Your task to perform on an android device: turn off priority inbox in the gmail app Image 0: 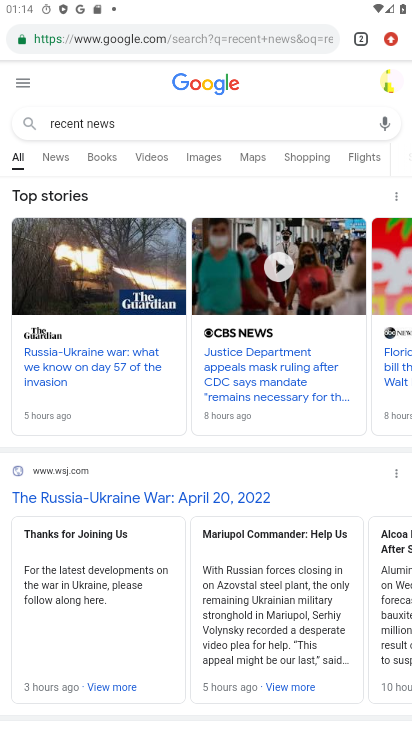
Step 0: press home button
Your task to perform on an android device: turn off priority inbox in the gmail app Image 1: 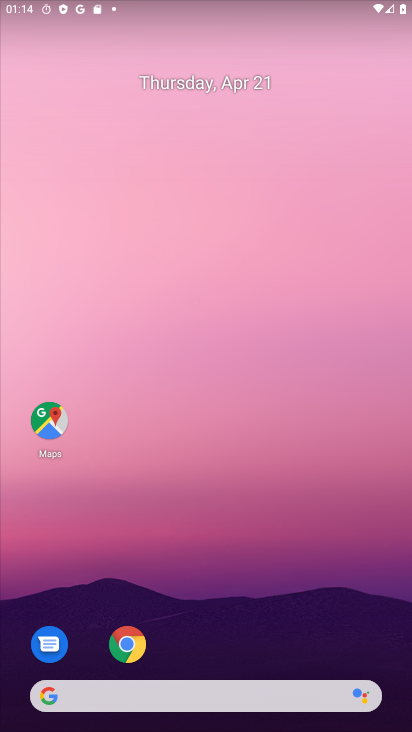
Step 1: drag from (275, 623) to (186, 66)
Your task to perform on an android device: turn off priority inbox in the gmail app Image 2: 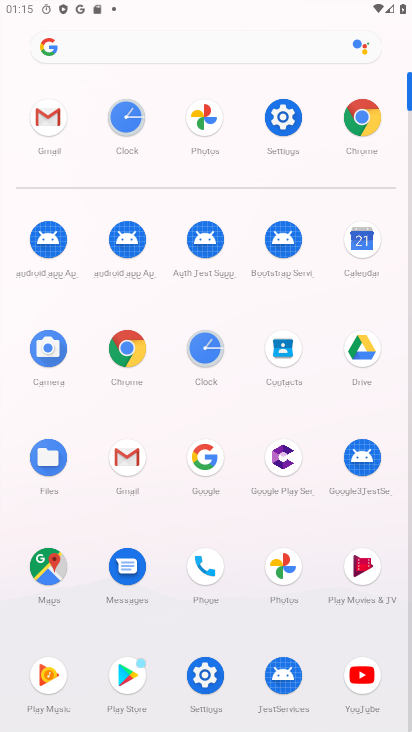
Step 2: click (48, 110)
Your task to perform on an android device: turn off priority inbox in the gmail app Image 3: 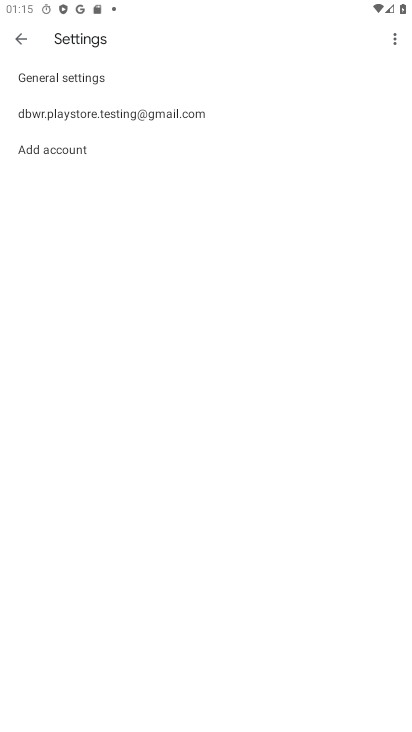
Step 3: click (66, 109)
Your task to perform on an android device: turn off priority inbox in the gmail app Image 4: 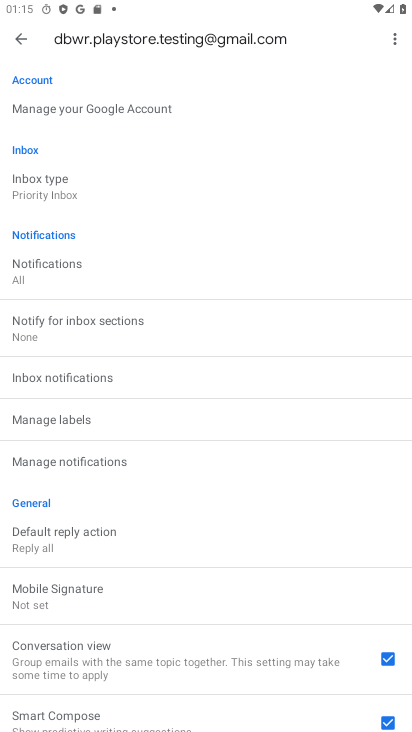
Step 4: click (76, 179)
Your task to perform on an android device: turn off priority inbox in the gmail app Image 5: 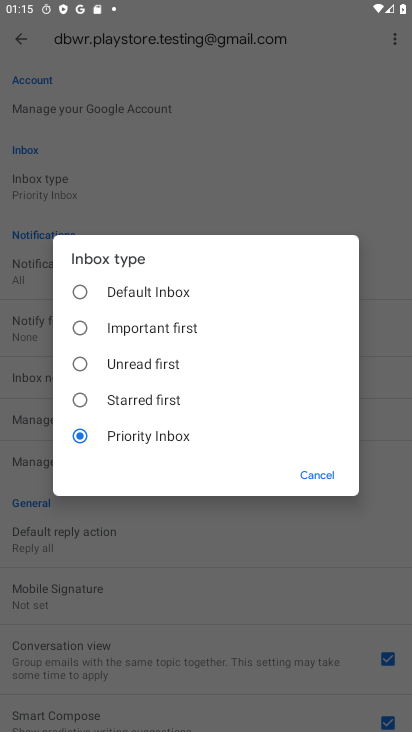
Step 5: click (155, 290)
Your task to perform on an android device: turn off priority inbox in the gmail app Image 6: 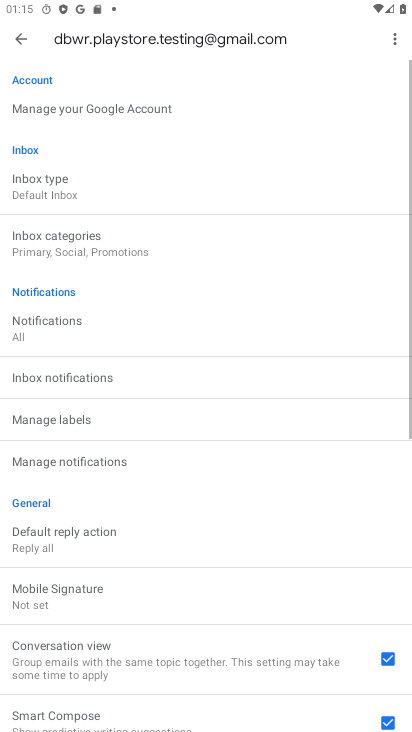
Step 6: task complete